Your task to perform on an android device: Go to Yahoo.com Image 0: 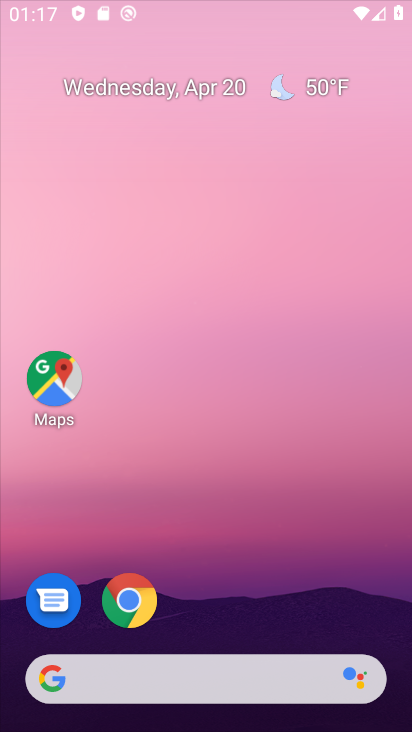
Step 0: click (54, 372)
Your task to perform on an android device: Go to Yahoo.com Image 1: 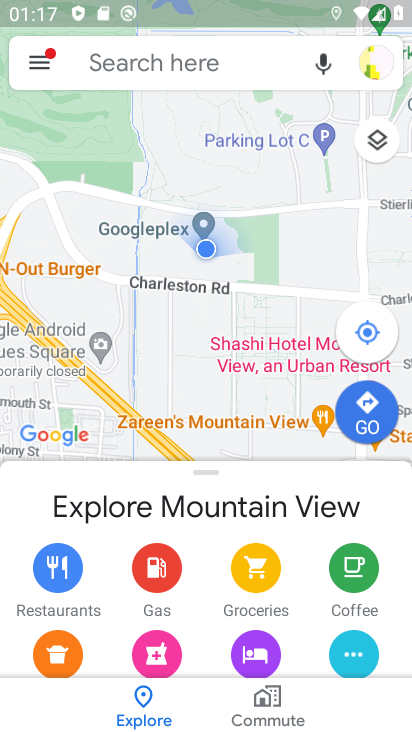
Step 1: click (216, 59)
Your task to perform on an android device: Go to Yahoo.com Image 2: 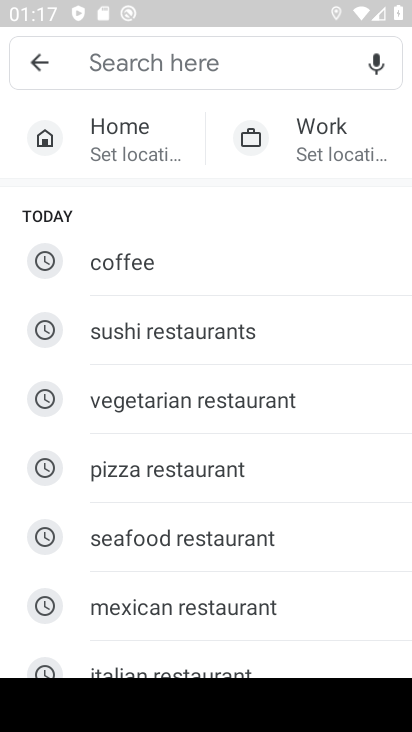
Step 2: type "sushi restaurants"
Your task to perform on an android device: Go to Yahoo.com Image 3: 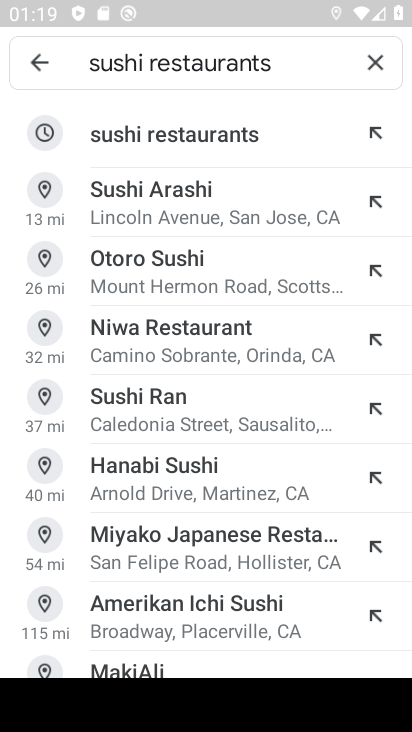
Step 3: press home button
Your task to perform on an android device: Go to Yahoo.com Image 4: 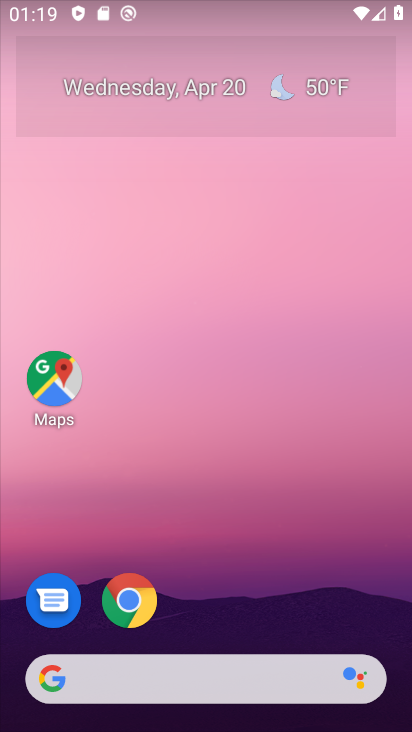
Step 4: click (135, 602)
Your task to perform on an android device: Go to Yahoo.com Image 5: 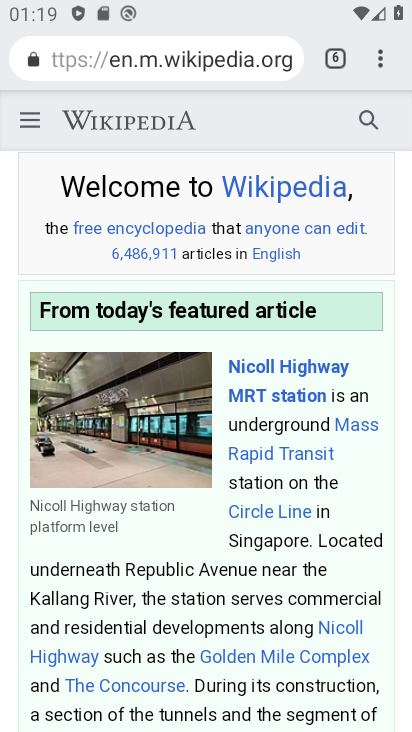
Step 5: click (333, 61)
Your task to perform on an android device: Go to Yahoo.com Image 6: 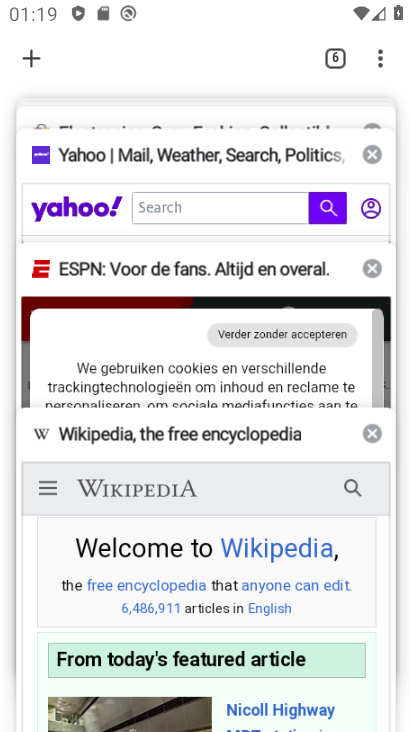
Step 6: click (31, 59)
Your task to perform on an android device: Go to Yahoo.com Image 7: 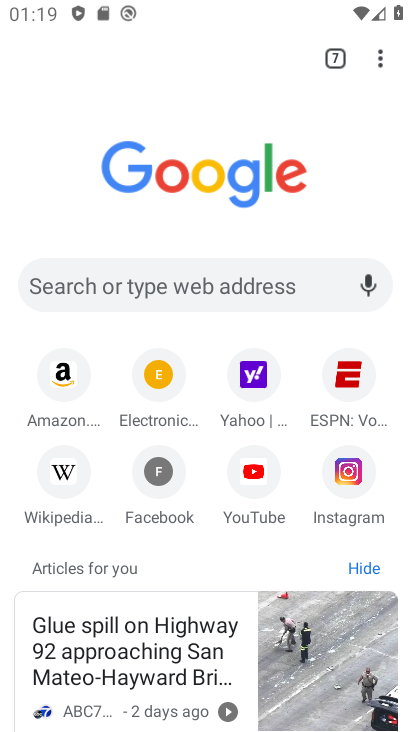
Step 7: click (257, 361)
Your task to perform on an android device: Go to Yahoo.com Image 8: 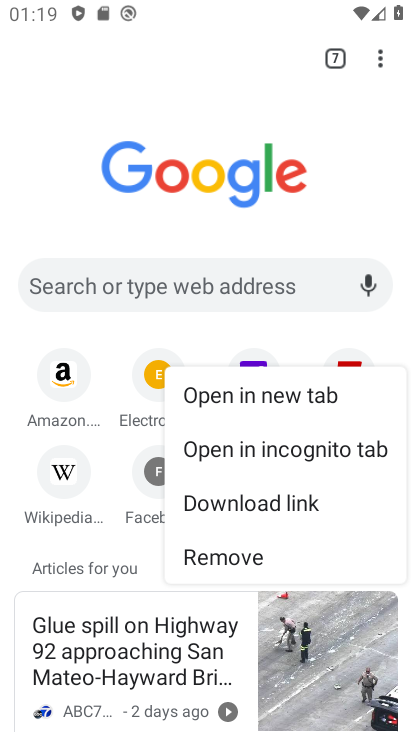
Step 8: task complete